Your task to perform on an android device: Go to Wikipedia Image 0: 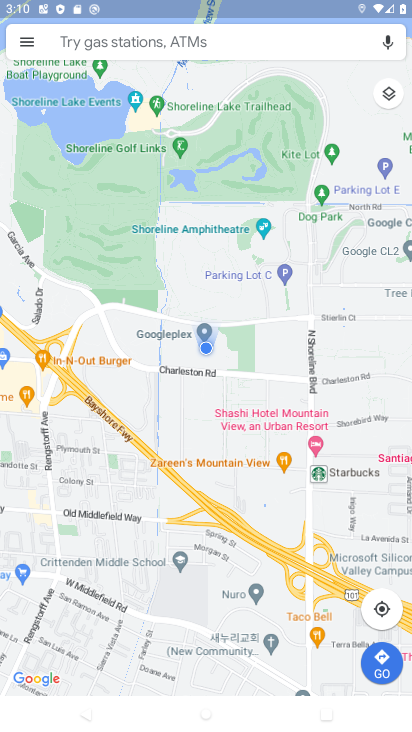
Step 0: press back button
Your task to perform on an android device: Go to Wikipedia Image 1: 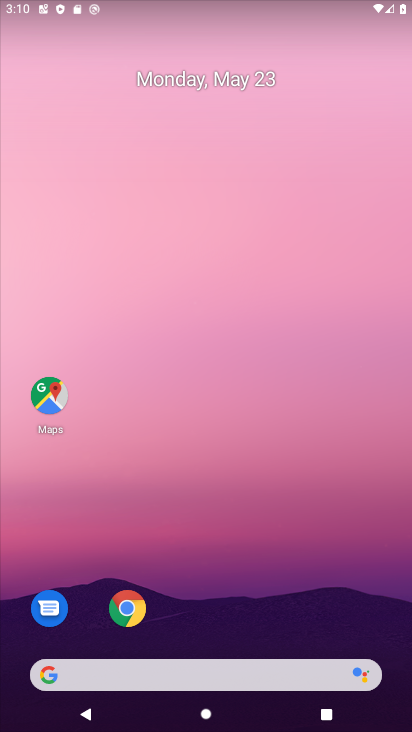
Step 1: click (127, 608)
Your task to perform on an android device: Go to Wikipedia Image 2: 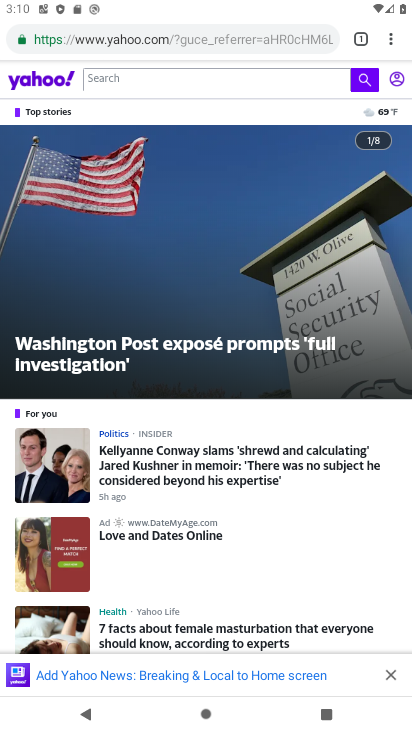
Step 2: click (248, 39)
Your task to perform on an android device: Go to Wikipedia Image 3: 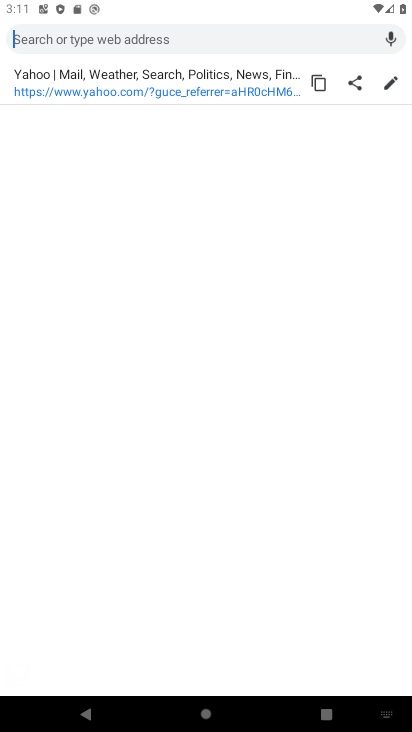
Step 3: type "Wikipedia"
Your task to perform on an android device: Go to Wikipedia Image 4: 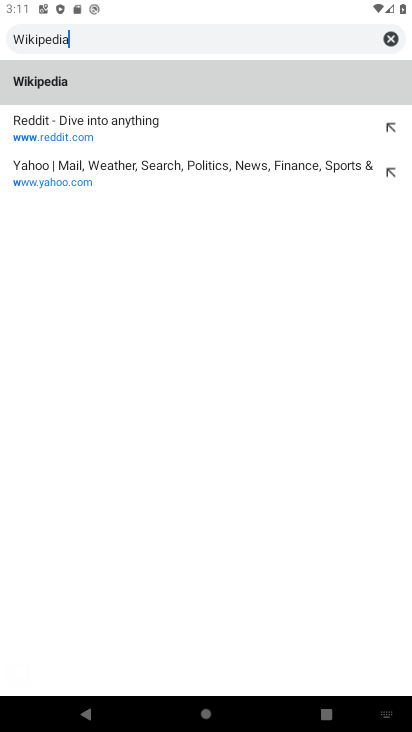
Step 4: type ""
Your task to perform on an android device: Go to Wikipedia Image 5: 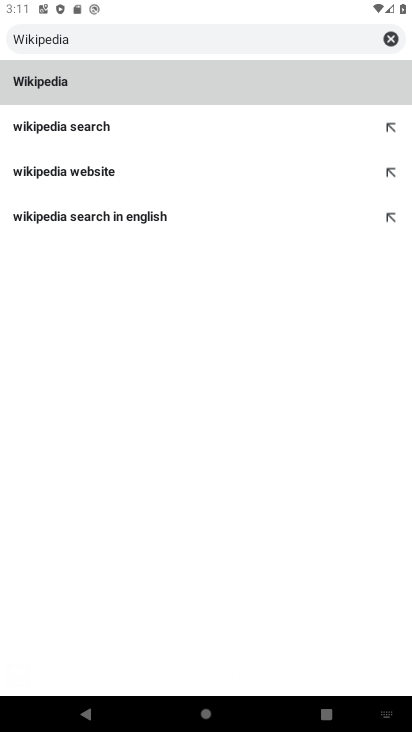
Step 5: click (56, 91)
Your task to perform on an android device: Go to Wikipedia Image 6: 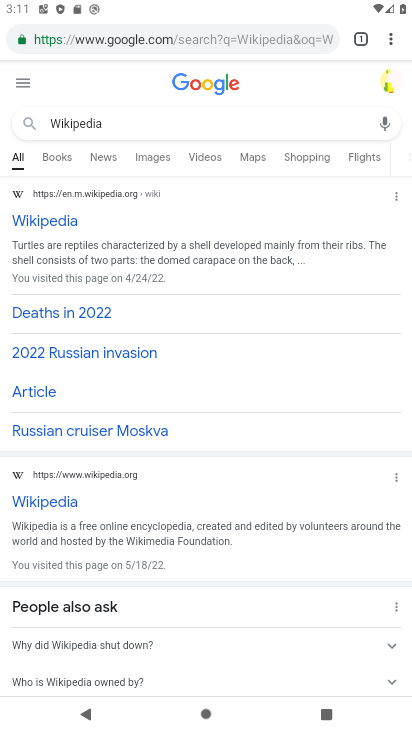
Step 6: click (44, 503)
Your task to perform on an android device: Go to Wikipedia Image 7: 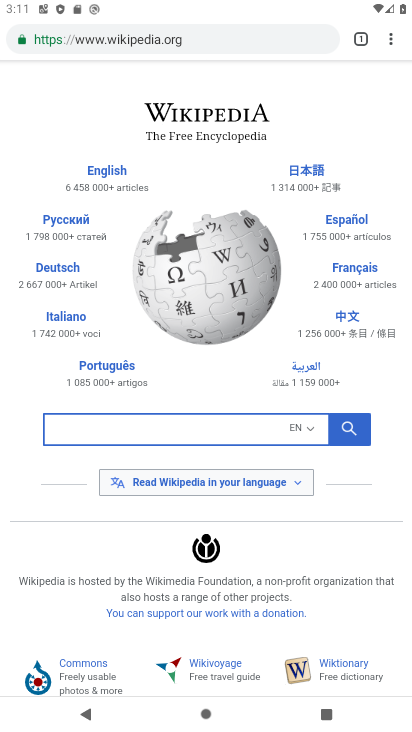
Step 7: task complete